Your task to perform on an android device: Show me popular videos on Youtube Image 0: 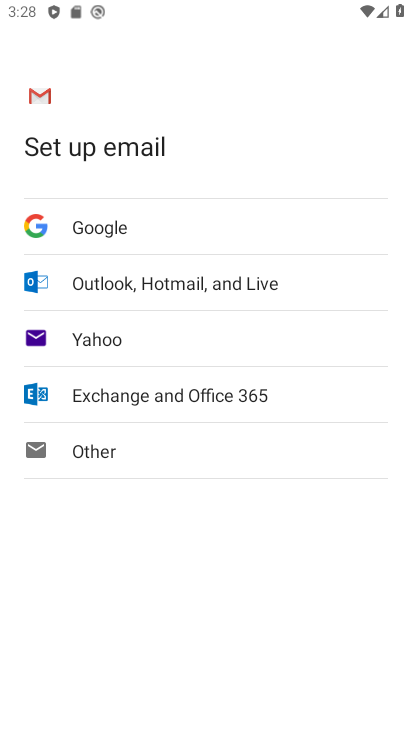
Step 0: press back button
Your task to perform on an android device: Show me popular videos on Youtube Image 1: 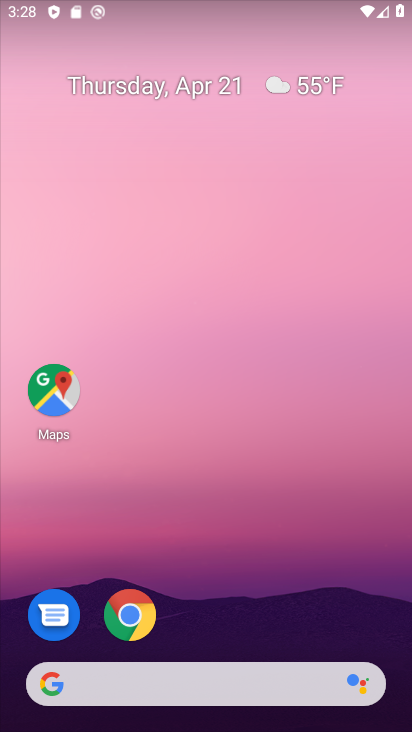
Step 1: drag from (257, 430) to (211, 34)
Your task to perform on an android device: Show me popular videos on Youtube Image 2: 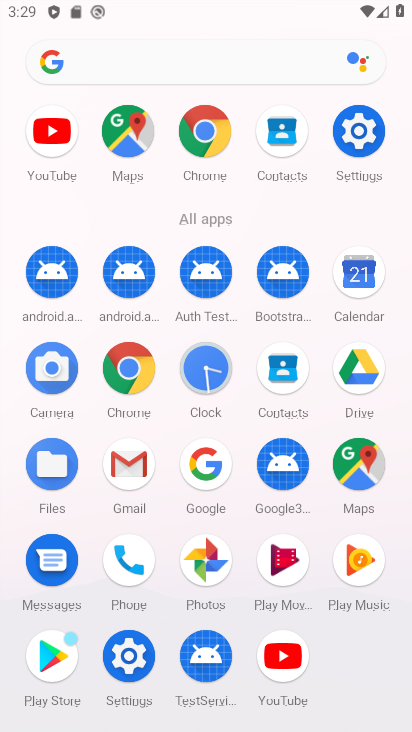
Step 2: click (56, 124)
Your task to perform on an android device: Show me popular videos on Youtube Image 3: 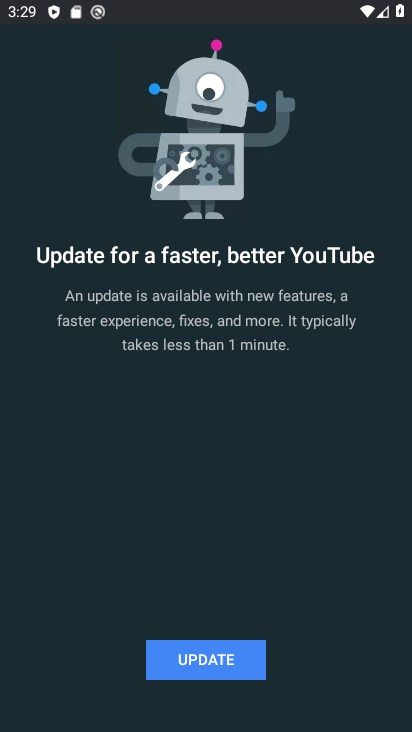
Step 3: click (230, 660)
Your task to perform on an android device: Show me popular videos on Youtube Image 4: 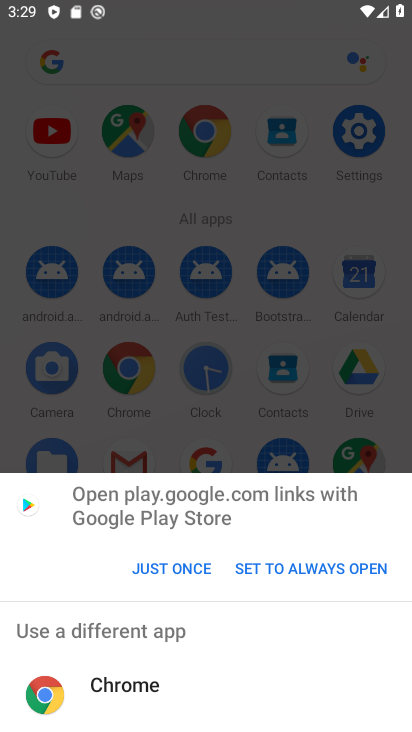
Step 4: click (144, 562)
Your task to perform on an android device: Show me popular videos on Youtube Image 5: 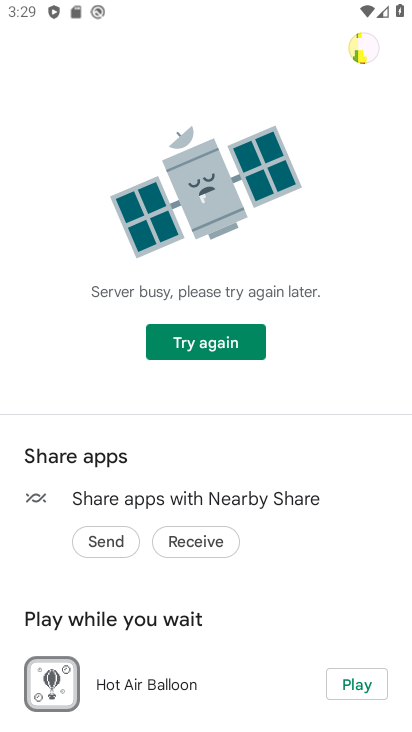
Step 5: task complete